Your task to perform on an android device: Go to Wikipedia Image 0: 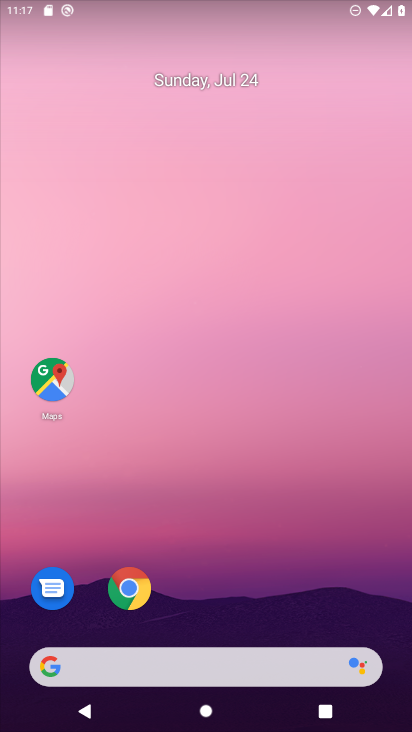
Step 0: click (139, 600)
Your task to perform on an android device: Go to Wikipedia Image 1: 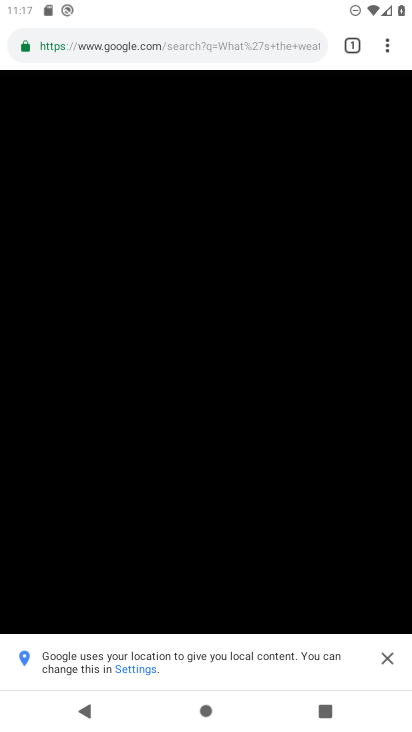
Step 1: click (350, 53)
Your task to perform on an android device: Go to Wikipedia Image 2: 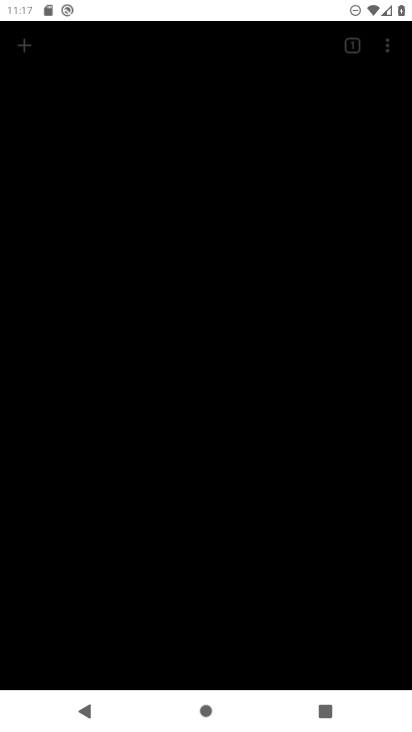
Step 2: press home button
Your task to perform on an android device: Go to Wikipedia Image 3: 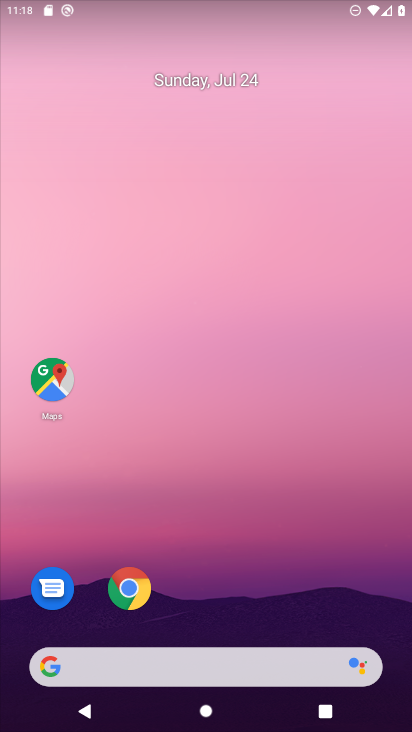
Step 3: click (134, 581)
Your task to perform on an android device: Go to Wikipedia Image 4: 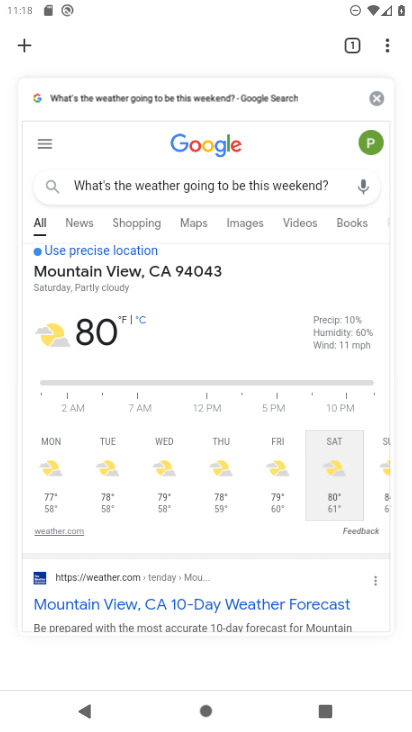
Step 4: click (29, 44)
Your task to perform on an android device: Go to Wikipedia Image 5: 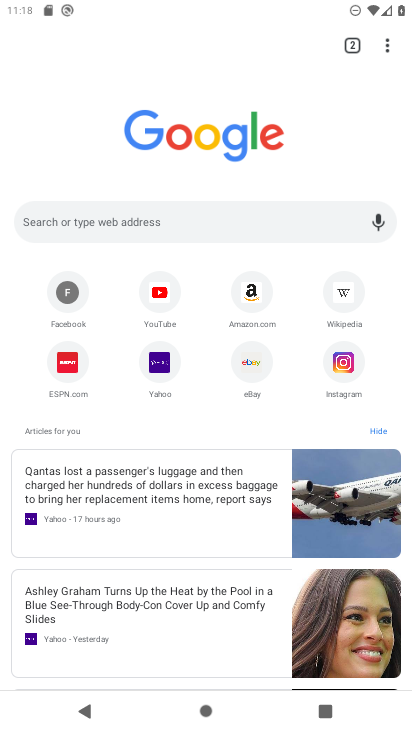
Step 5: click (348, 296)
Your task to perform on an android device: Go to Wikipedia Image 6: 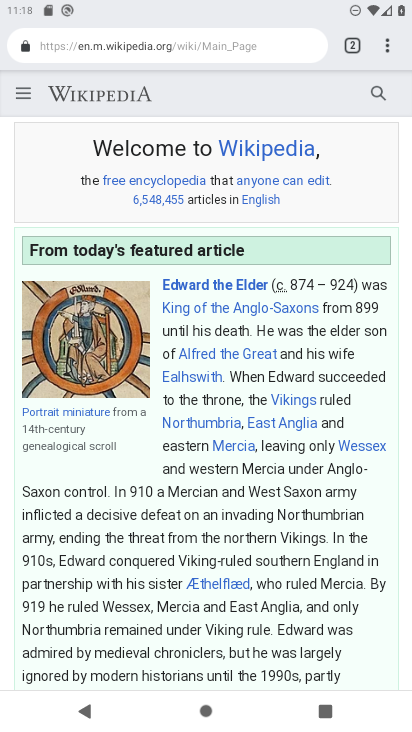
Step 6: task complete